Your task to perform on an android device: Open Maps and search for coffee Image 0: 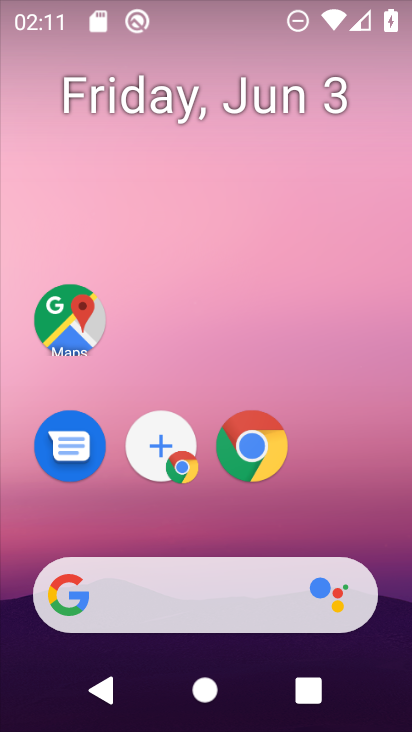
Step 0: click (72, 289)
Your task to perform on an android device: Open Maps and search for coffee Image 1: 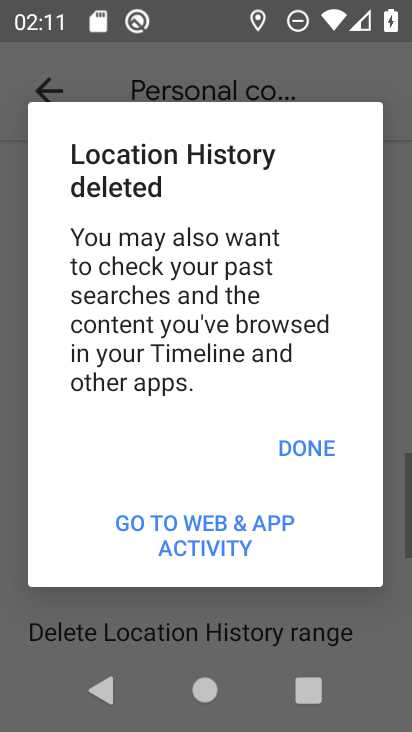
Step 1: click (312, 445)
Your task to perform on an android device: Open Maps and search for coffee Image 2: 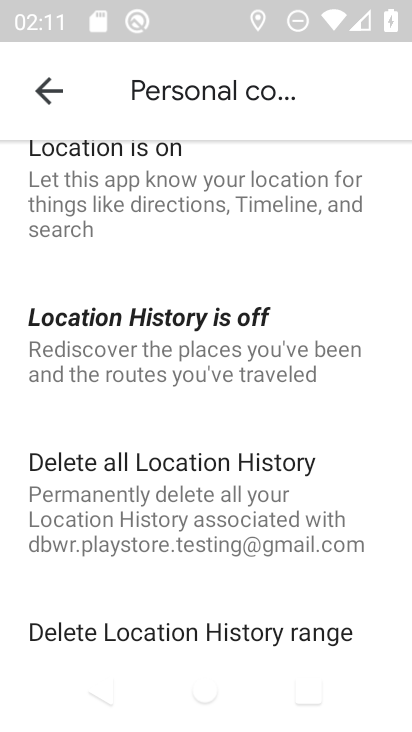
Step 2: click (39, 77)
Your task to perform on an android device: Open Maps and search for coffee Image 3: 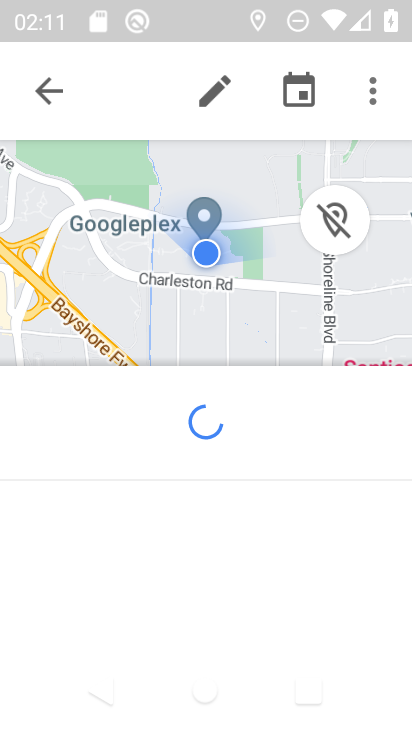
Step 3: click (39, 77)
Your task to perform on an android device: Open Maps and search for coffee Image 4: 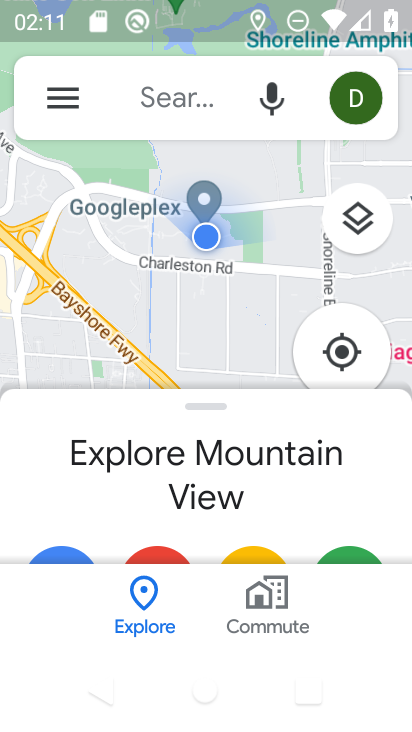
Step 4: click (143, 102)
Your task to perform on an android device: Open Maps and search for coffee Image 5: 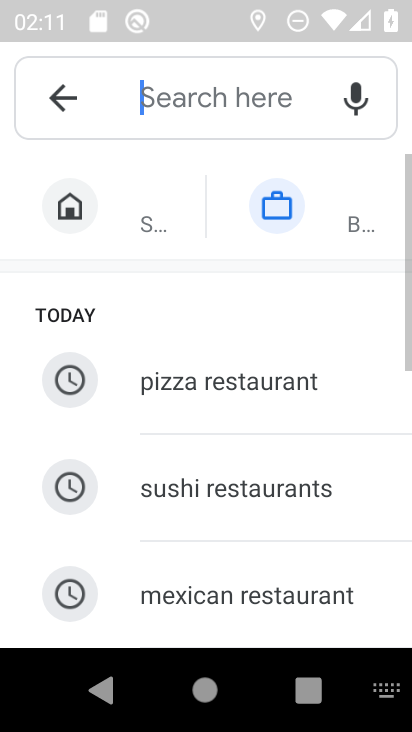
Step 5: drag from (296, 603) to (254, 160)
Your task to perform on an android device: Open Maps and search for coffee Image 6: 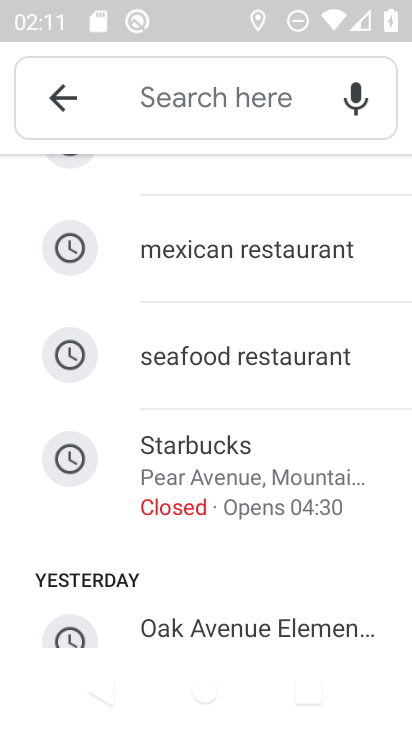
Step 6: click (256, 110)
Your task to perform on an android device: Open Maps and search for coffee Image 7: 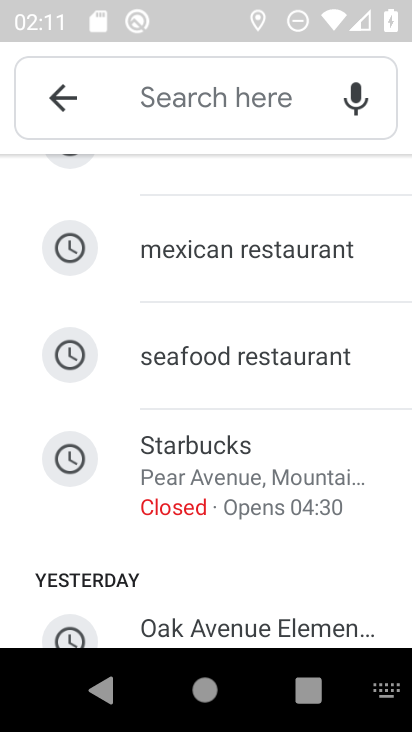
Step 7: type "coffee"
Your task to perform on an android device: Open Maps and search for coffee Image 8: 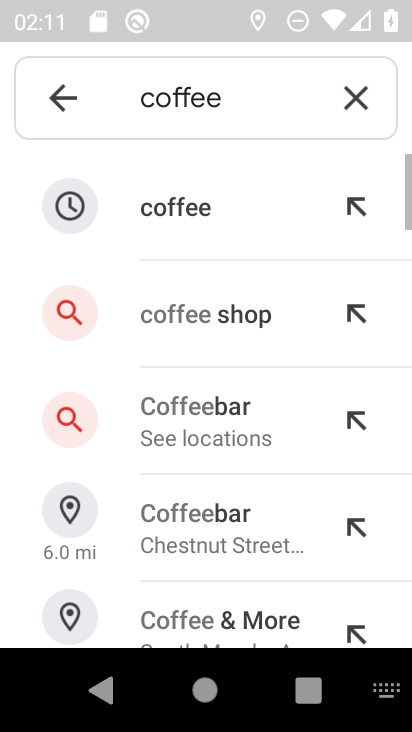
Step 8: click (253, 201)
Your task to perform on an android device: Open Maps and search for coffee Image 9: 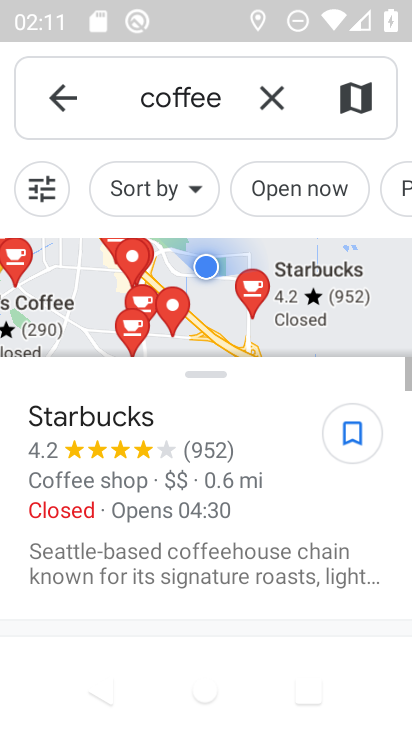
Step 9: task complete